Your task to perform on an android device: delete browsing data in the chrome app Image 0: 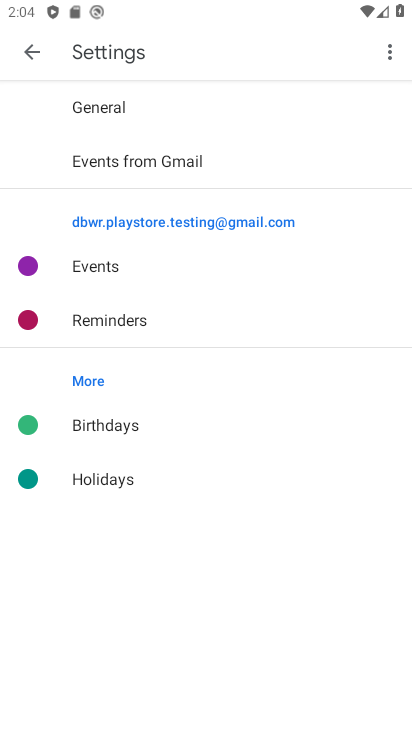
Step 0: drag from (233, 628) to (203, 161)
Your task to perform on an android device: delete browsing data in the chrome app Image 1: 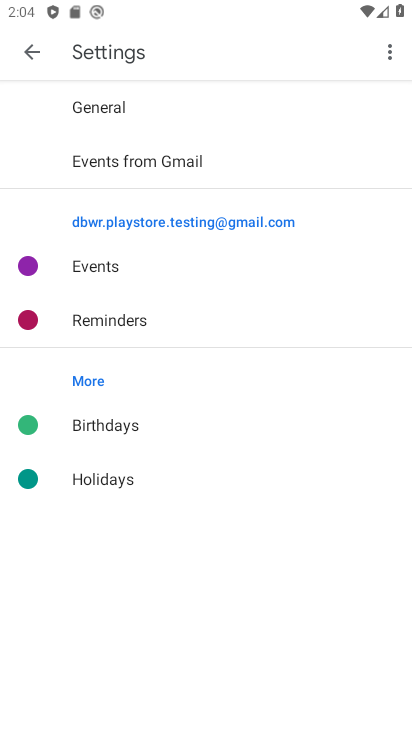
Step 1: press home button
Your task to perform on an android device: delete browsing data in the chrome app Image 2: 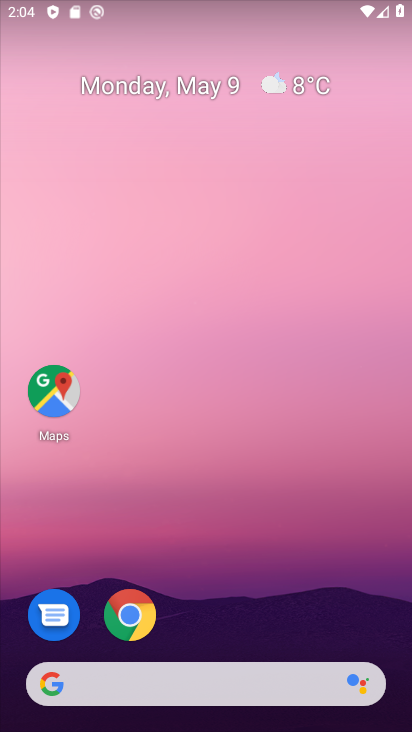
Step 2: click (138, 619)
Your task to perform on an android device: delete browsing data in the chrome app Image 3: 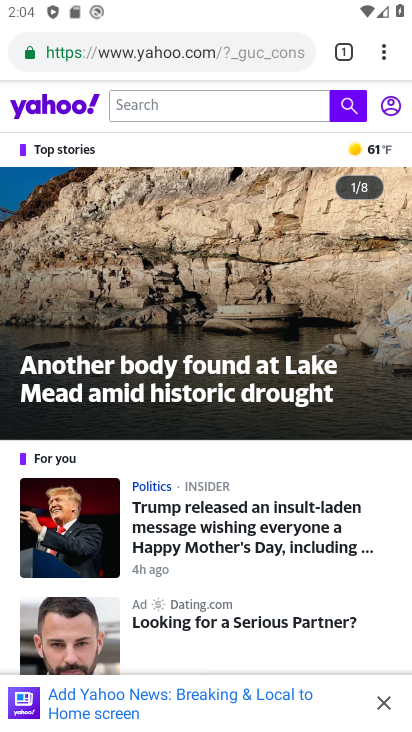
Step 3: drag from (384, 61) to (204, 292)
Your task to perform on an android device: delete browsing data in the chrome app Image 4: 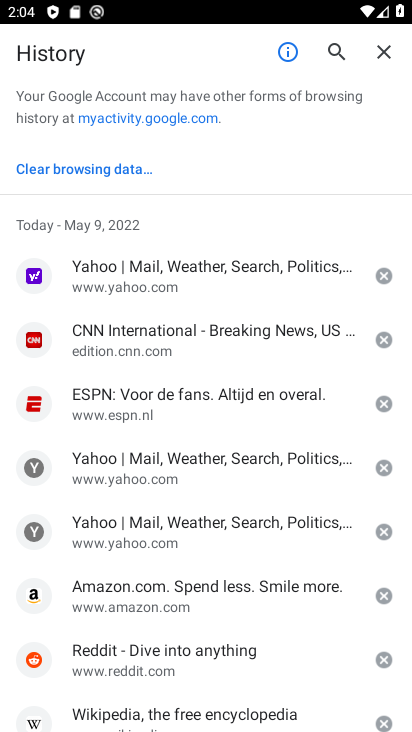
Step 4: click (107, 168)
Your task to perform on an android device: delete browsing data in the chrome app Image 5: 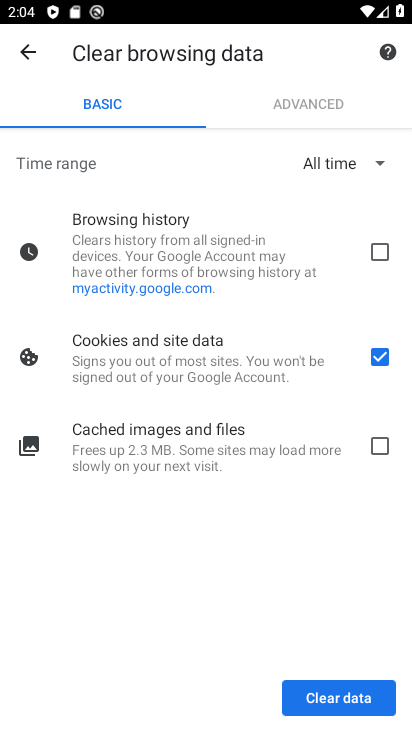
Step 5: click (378, 354)
Your task to perform on an android device: delete browsing data in the chrome app Image 6: 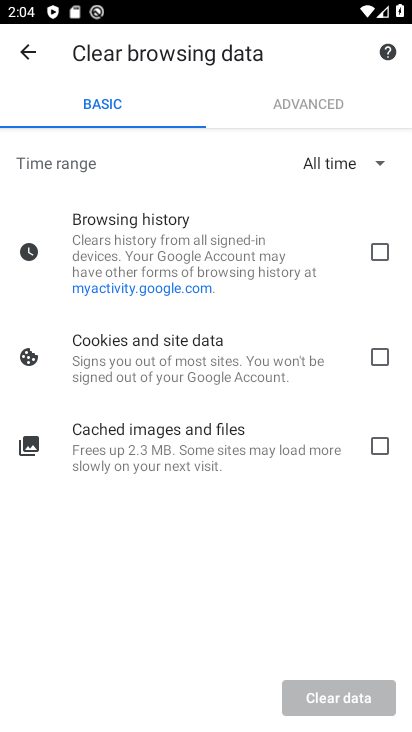
Step 6: click (376, 247)
Your task to perform on an android device: delete browsing data in the chrome app Image 7: 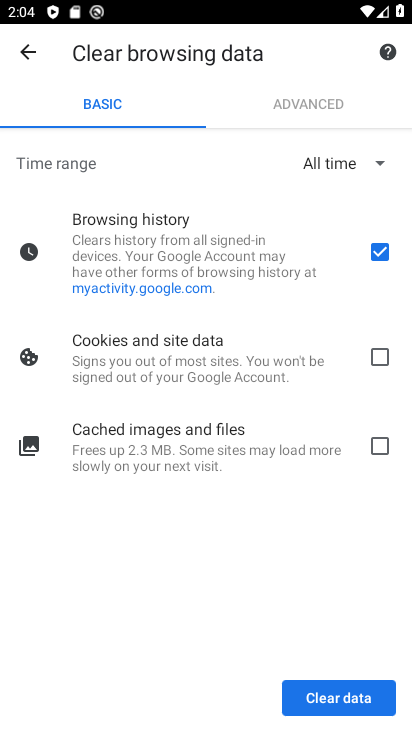
Step 7: click (357, 700)
Your task to perform on an android device: delete browsing data in the chrome app Image 8: 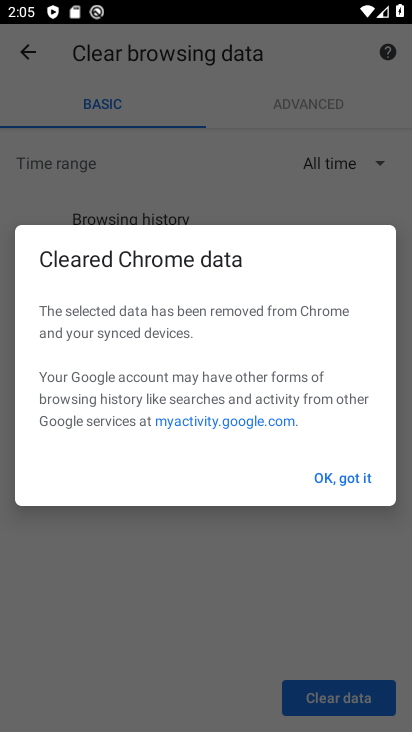
Step 8: click (347, 481)
Your task to perform on an android device: delete browsing data in the chrome app Image 9: 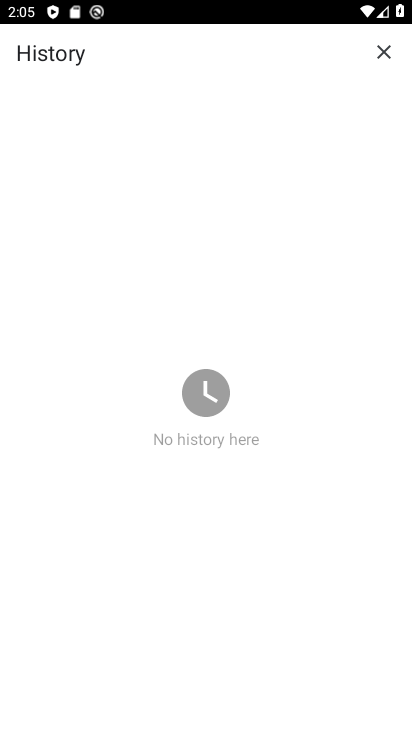
Step 9: task complete